Your task to perform on an android device: Open the map Image 0: 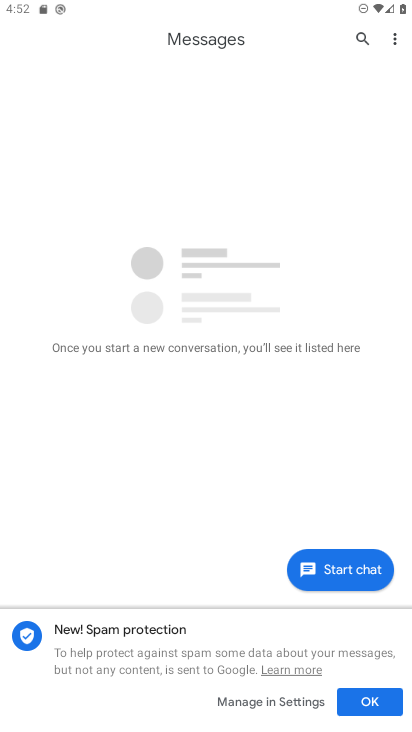
Step 0: press home button
Your task to perform on an android device: Open the map Image 1: 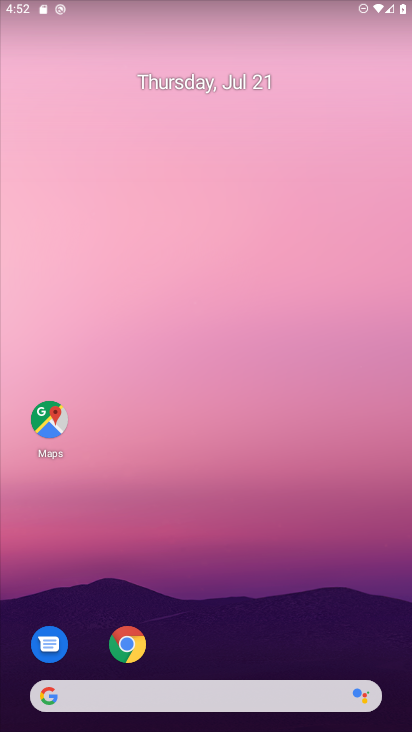
Step 1: click (47, 442)
Your task to perform on an android device: Open the map Image 2: 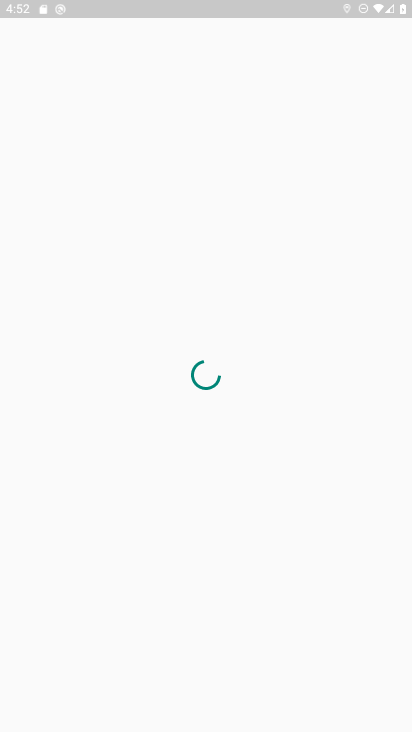
Step 2: task complete